Your task to perform on an android device: turn on the 24-hour format for clock Image 0: 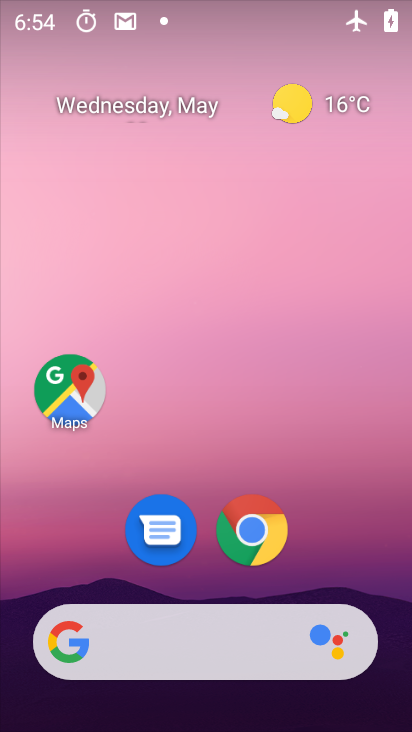
Step 0: drag from (205, 569) to (192, 87)
Your task to perform on an android device: turn on the 24-hour format for clock Image 1: 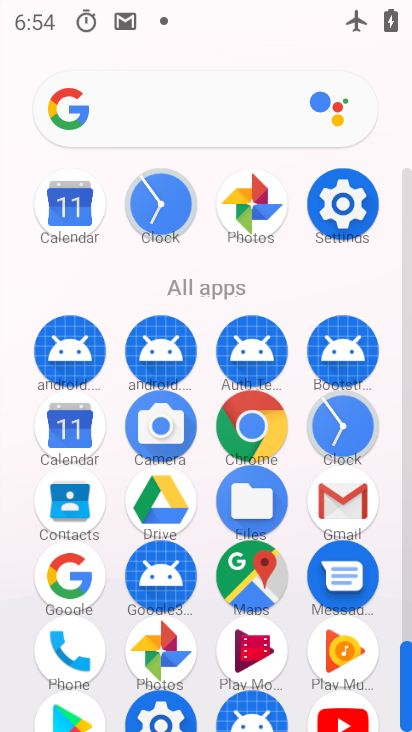
Step 1: click (340, 421)
Your task to perform on an android device: turn on the 24-hour format for clock Image 2: 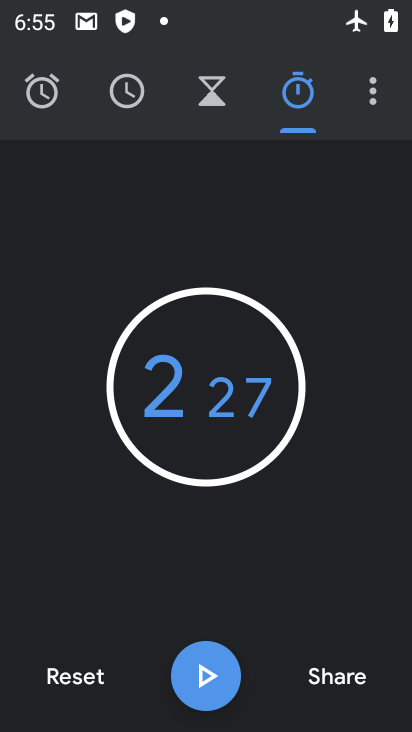
Step 2: click (374, 97)
Your task to perform on an android device: turn on the 24-hour format for clock Image 3: 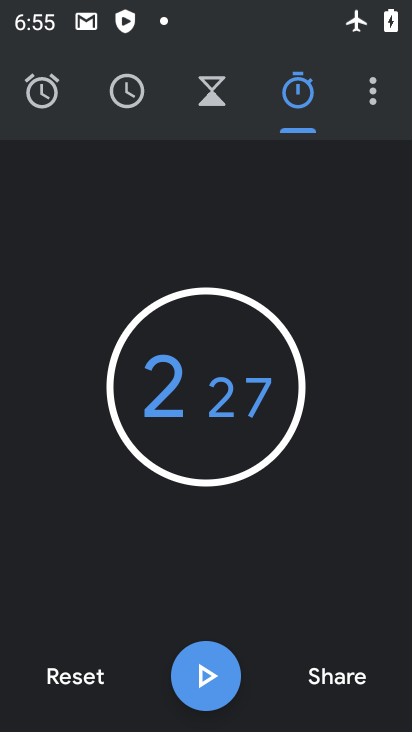
Step 3: click (376, 99)
Your task to perform on an android device: turn on the 24-hour format for clock Image 4: 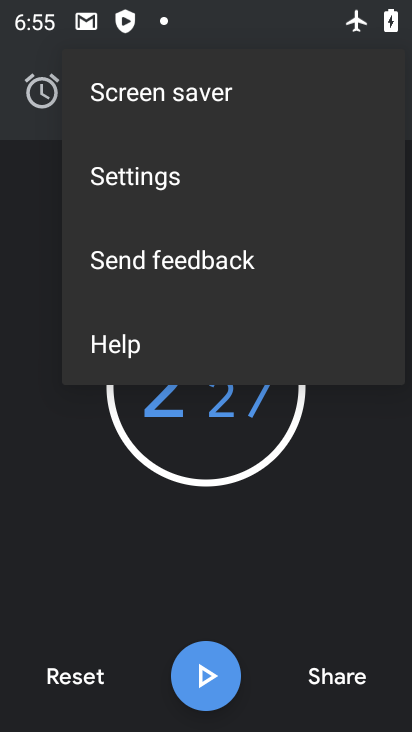
Step 4: click (163, 179)
Your task to perform on an android device: turn on the 24-hour format for clock Image 5: 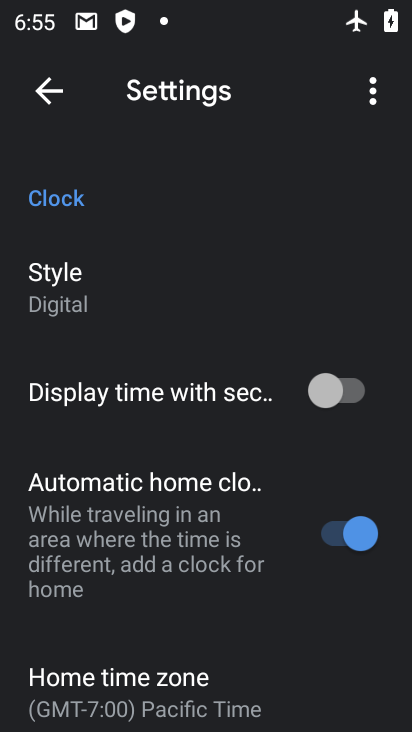
Step 5: drag from (186, 563) to (256, 185)
Your task to perform on an android device: turn on the 24-hour format for clock Image 6: 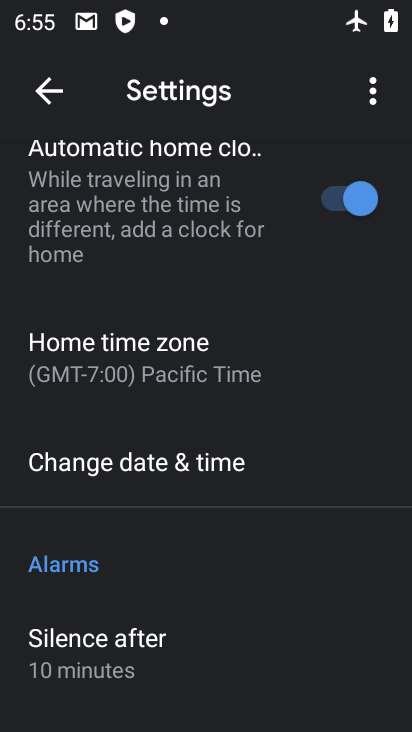
Step 6: click (102, 441)
Your task to perform on an android device: turn on the 24-hour format for clock Image 7: 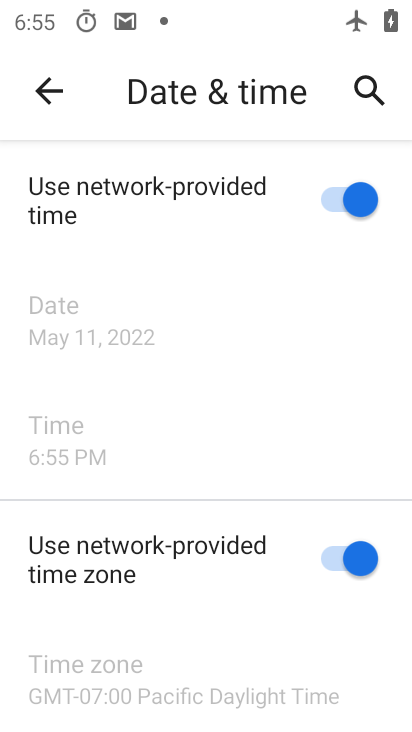
Step 7: drag from (123, 649) to (204, 286)
Your task to perform on an android device: turn on the 24-hour format for clock Image 8: 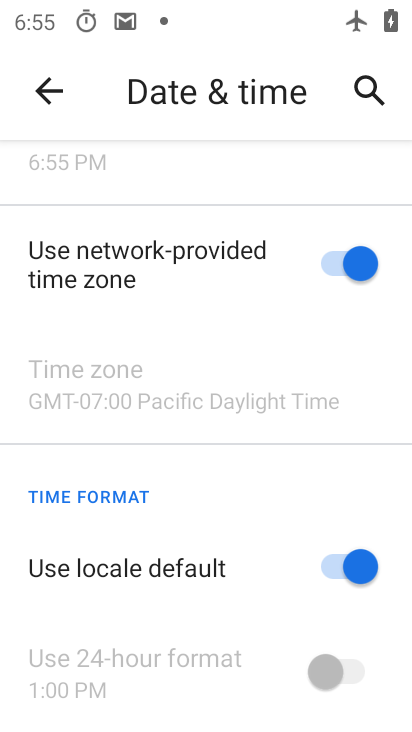
Step 8: click (326, 563)
Your task to perform on an android device: turn on the 24-hour format for clock Image 9: 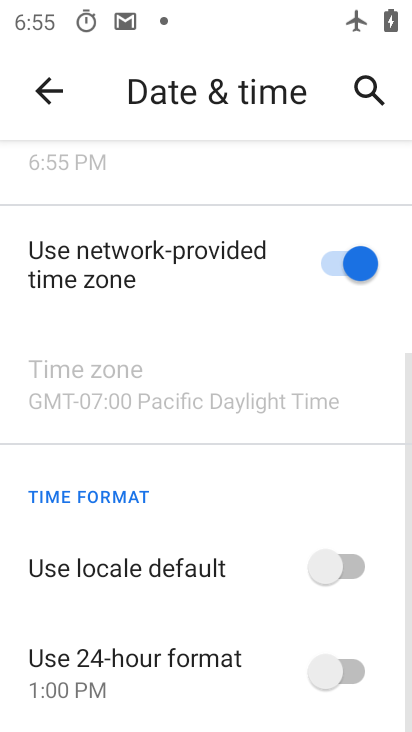
Step 9: click (341, 679)
Your task to perform on an android device: turn on the 24-hour format for clock Image 10: 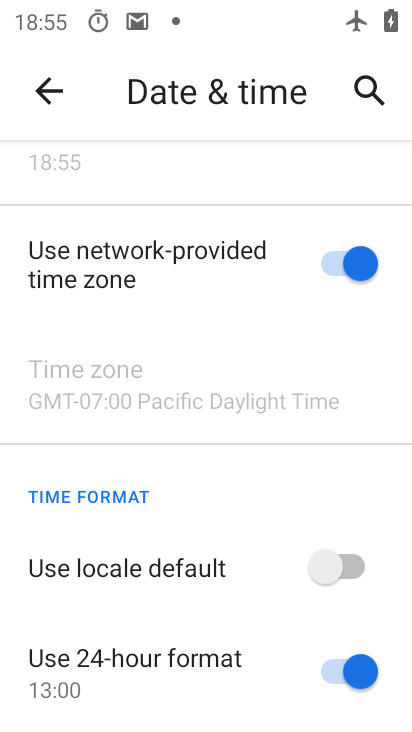
Step 10: task complete